Your task to perform on an android device: toggle show notifications on the lock screen Image 0: 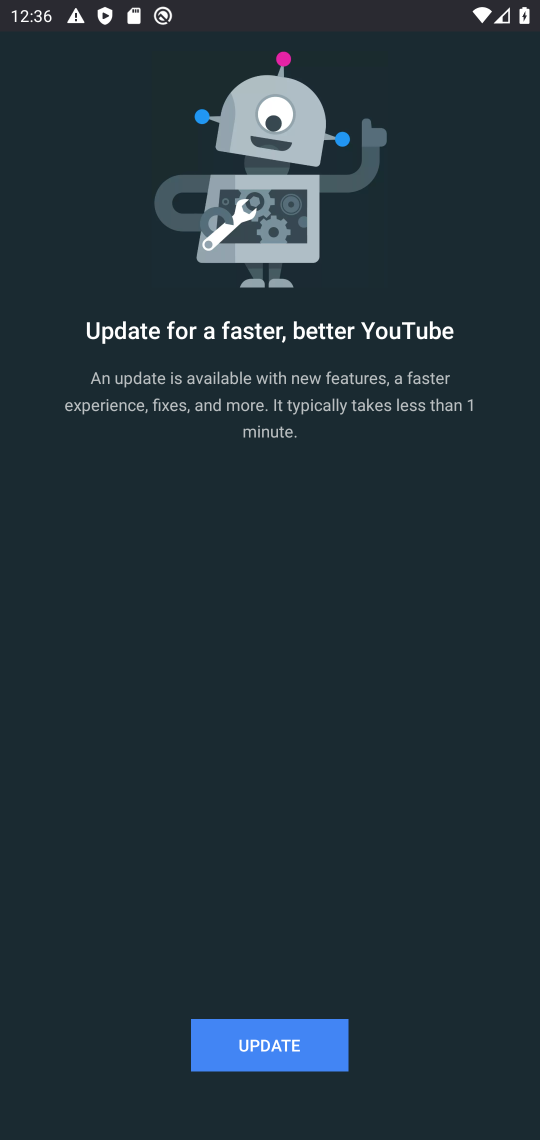
Step 0: press home button
Your task to perform on an android device: toggle show notifications on the lock screen Image 1: 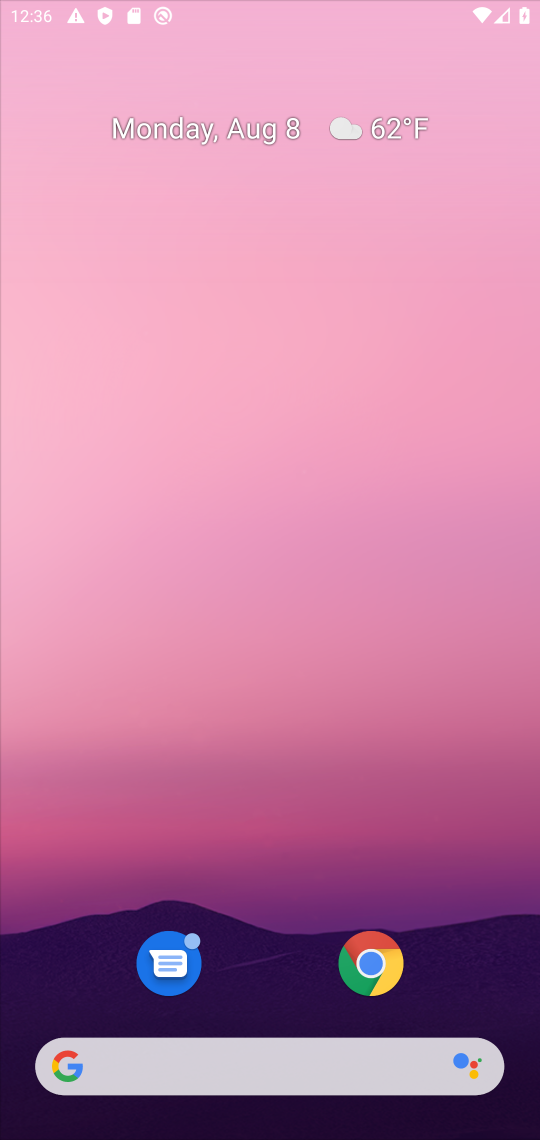
Step 1: drag from (505, 966) to (227, 1)
Your task to perform on an android device: toggle show notifications on the lock screen Image 2: 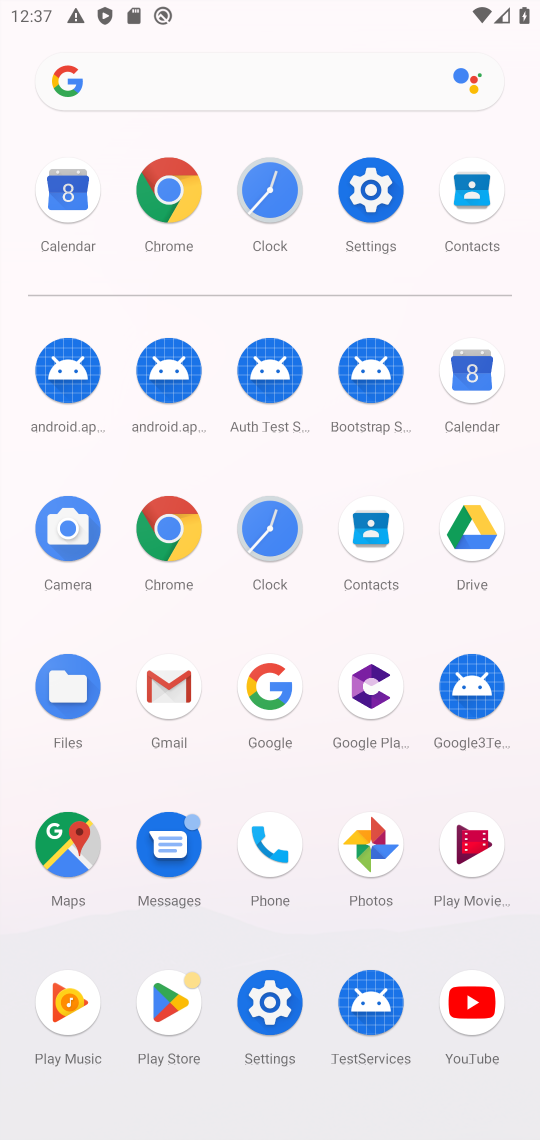
Step 2: click (260, 1009)
Your task to perform on an android device: toggle show notifications on the lock screen Image 3: 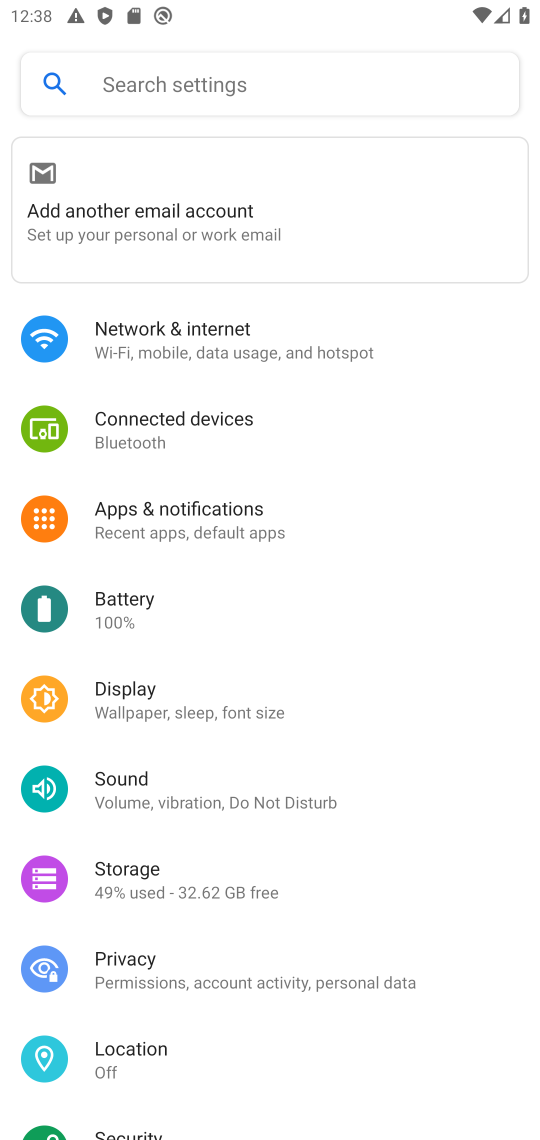
Step 3: click (195, 532)
Your task to perform on an android device: toggle show notifications on the lock screen Image 4: 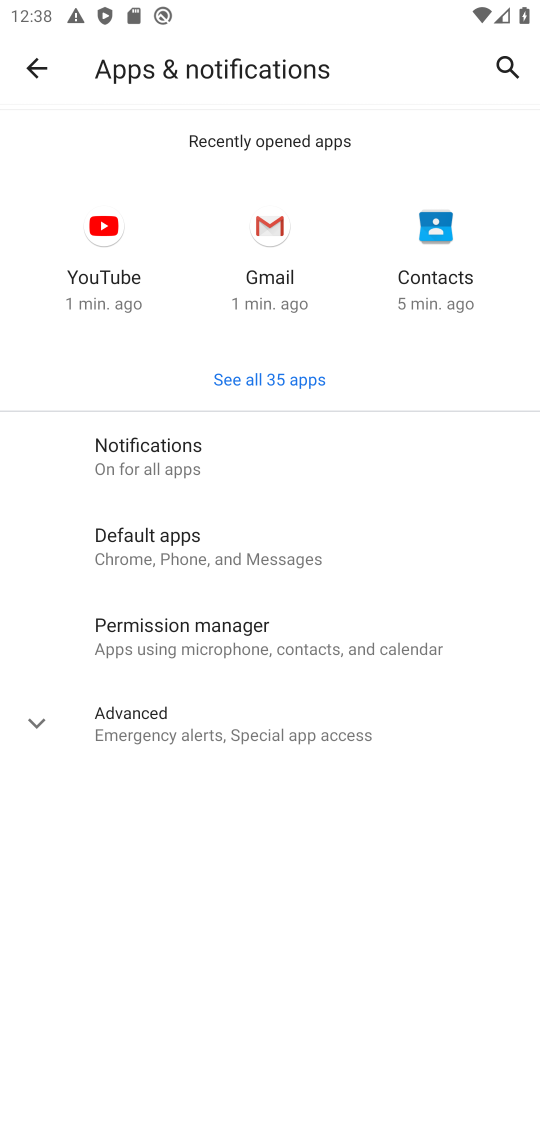
Step 4: click (198, 468)
Your task to perform on an android device: toggle show notifications on the lock screen Image 5: 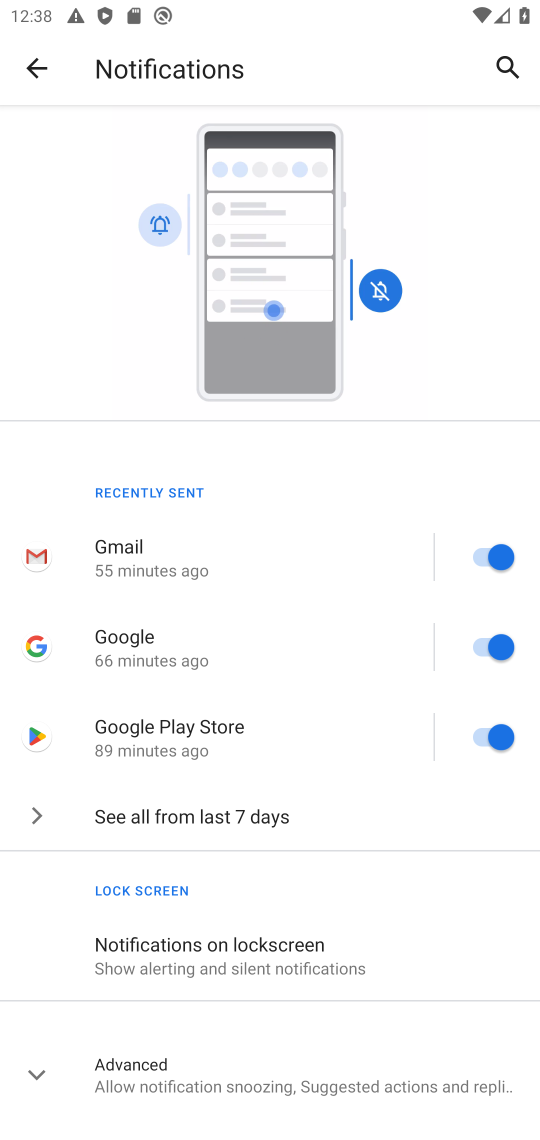
Step 5: click (212, 960)
Your task to perform on an android device: toggle show notifications on the lock screen Image 6: 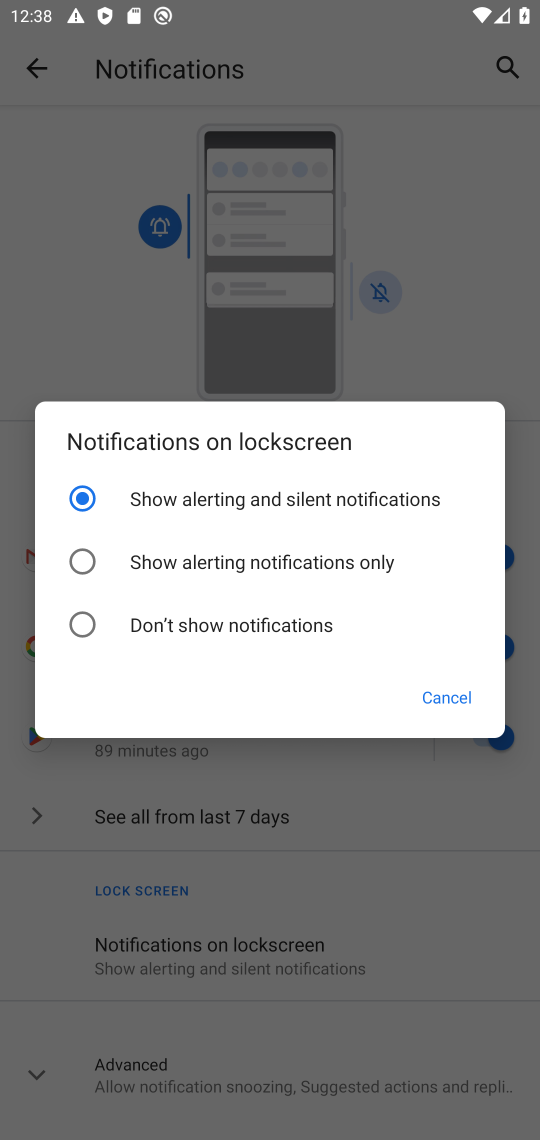
Step 6: click (161, 629)
Your task to perform on an android device: toggle show notifications on the lock screen Image 7: 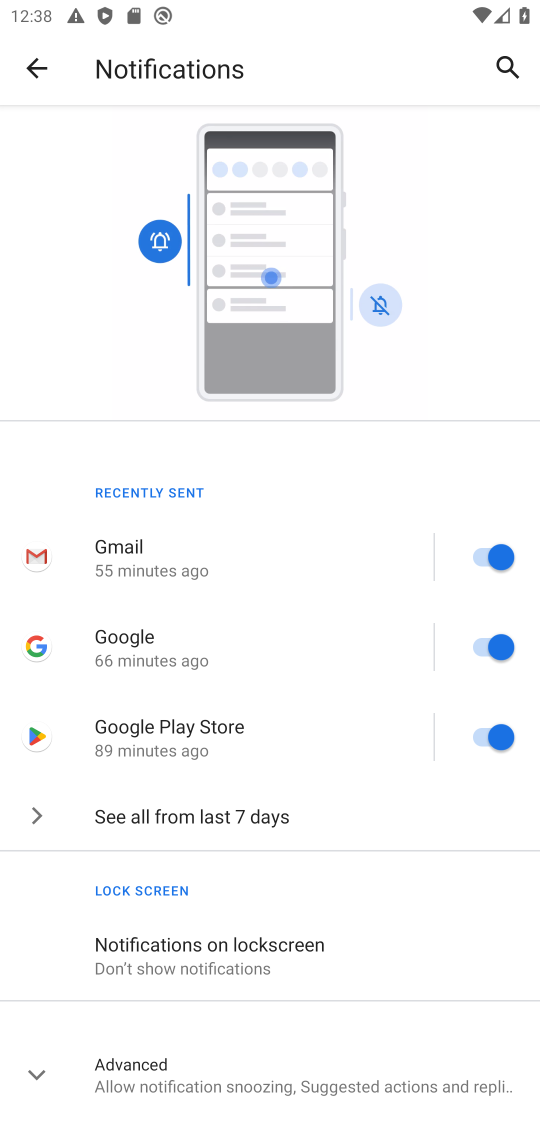
Step 7: task complete